Your task to perform on an android device: Open Youtube and go to the subscriptions tab Image 0: 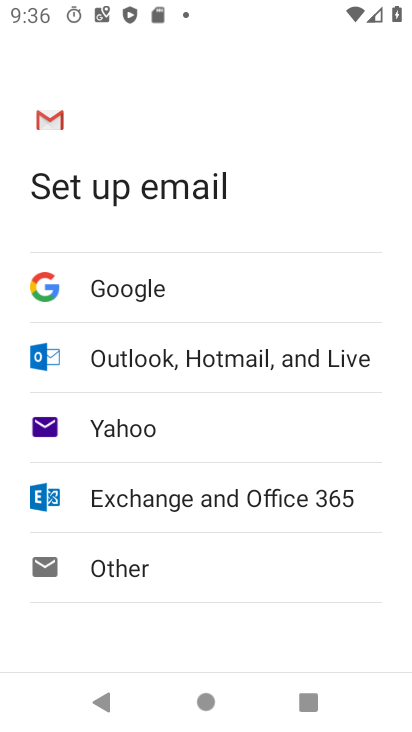
Step 0: press home button
Your task to perform on an android device: Open Youtube and go to the subscriptions tab Image 1: 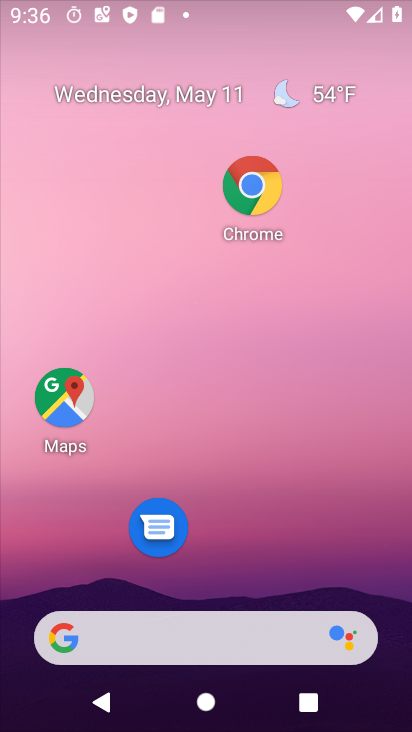
Step 1: drag from (250, 556) to (296, 42)
Your task to perform on an android device: Open Youtube and go to the subscriptions tab Image 2: 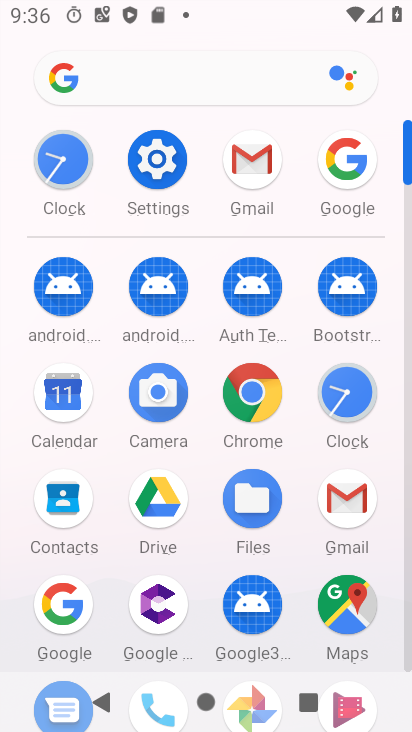
Step 2: drag from (200, 570) to (245, 51)
Your task to perform on an android device: Open Youtube and go to the subscriptions tab Image 3: 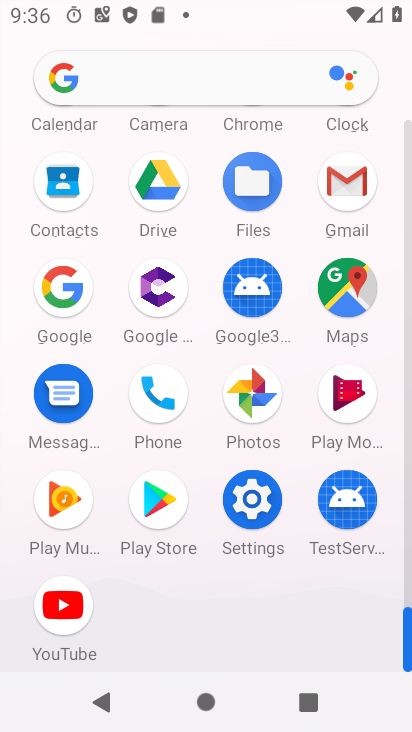
Step 3: click (60, 607)
Your task to perform on an android device: Open Youtube and go to the subscriptions tab Image 4: 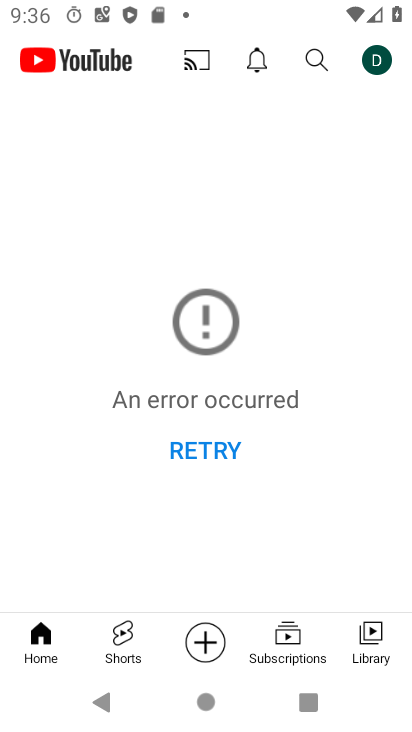
Step 4: click (294, 654)
Your task to perform on an android device: Open Youtube and go to the subscriptions tab Image 5: 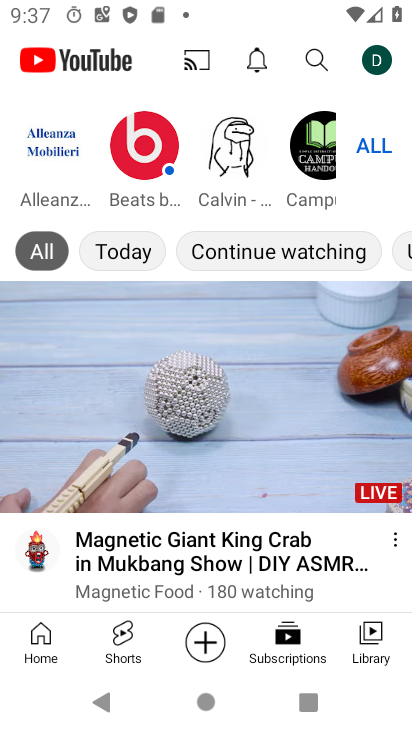
Step 5: task complete